Your task to perform on an android device: Set the phone to "Do not disturb". Image 0: 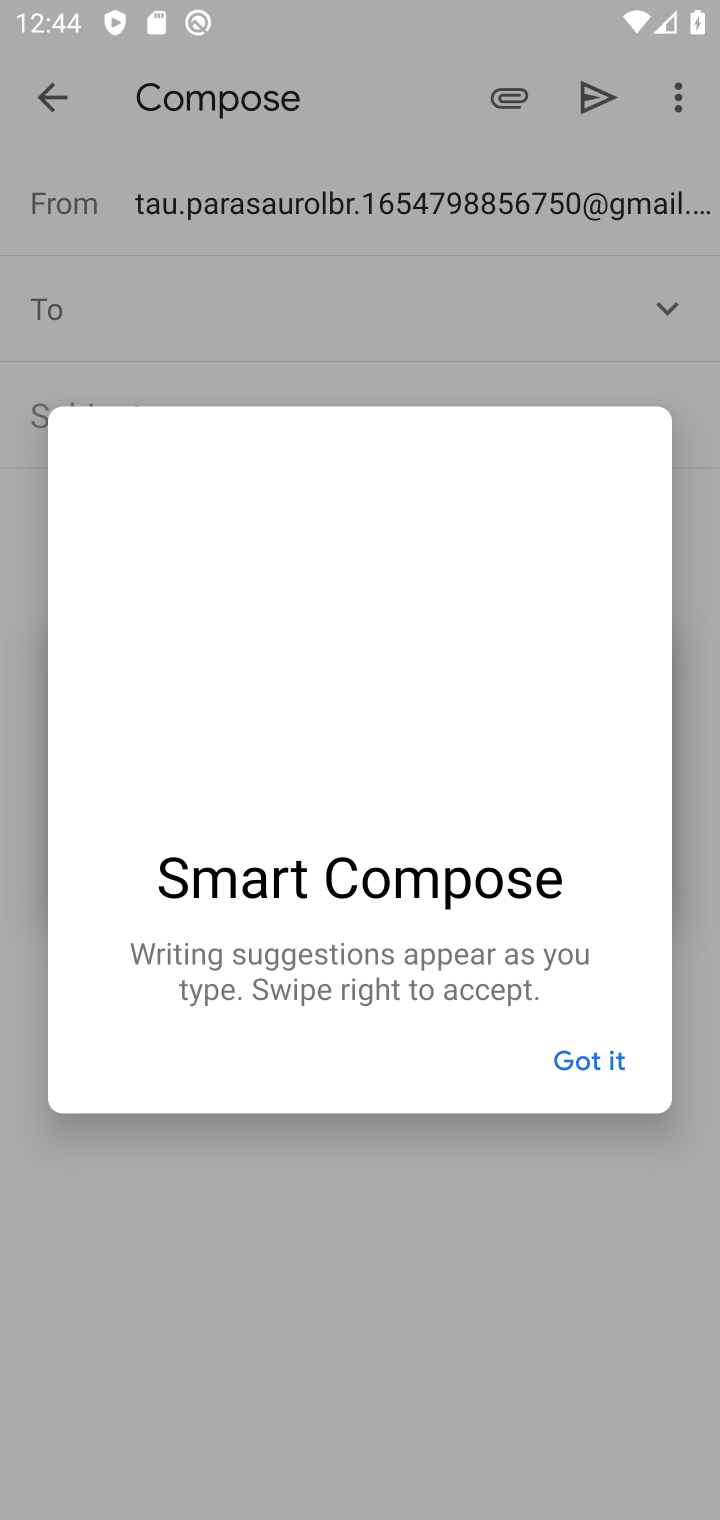
Step 0: press back button
Your task to perform on an android device: Set the phone to "Do not disturb". Image 1: 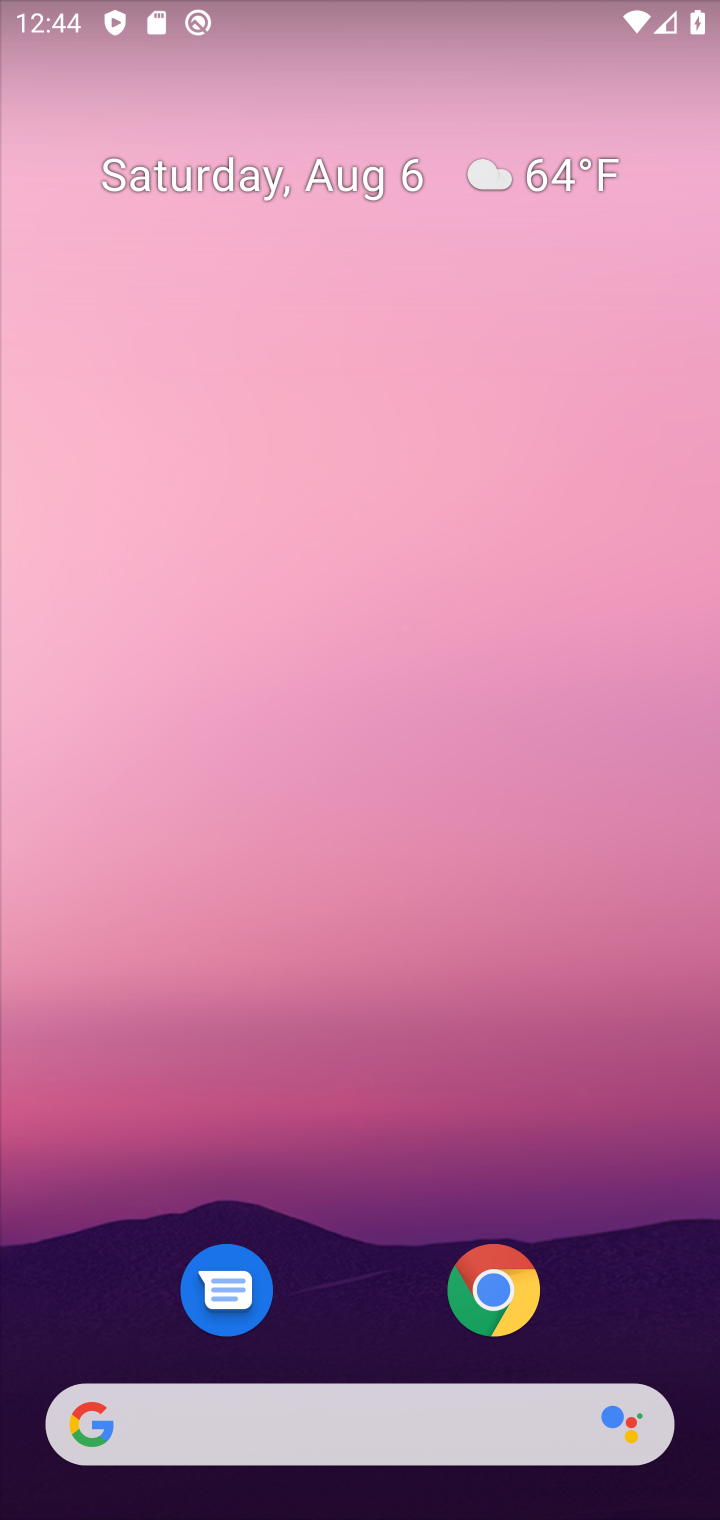
Step 1: press back button
Your task to perform on an android device: Set the phone to "Do not disturb". Image 2: 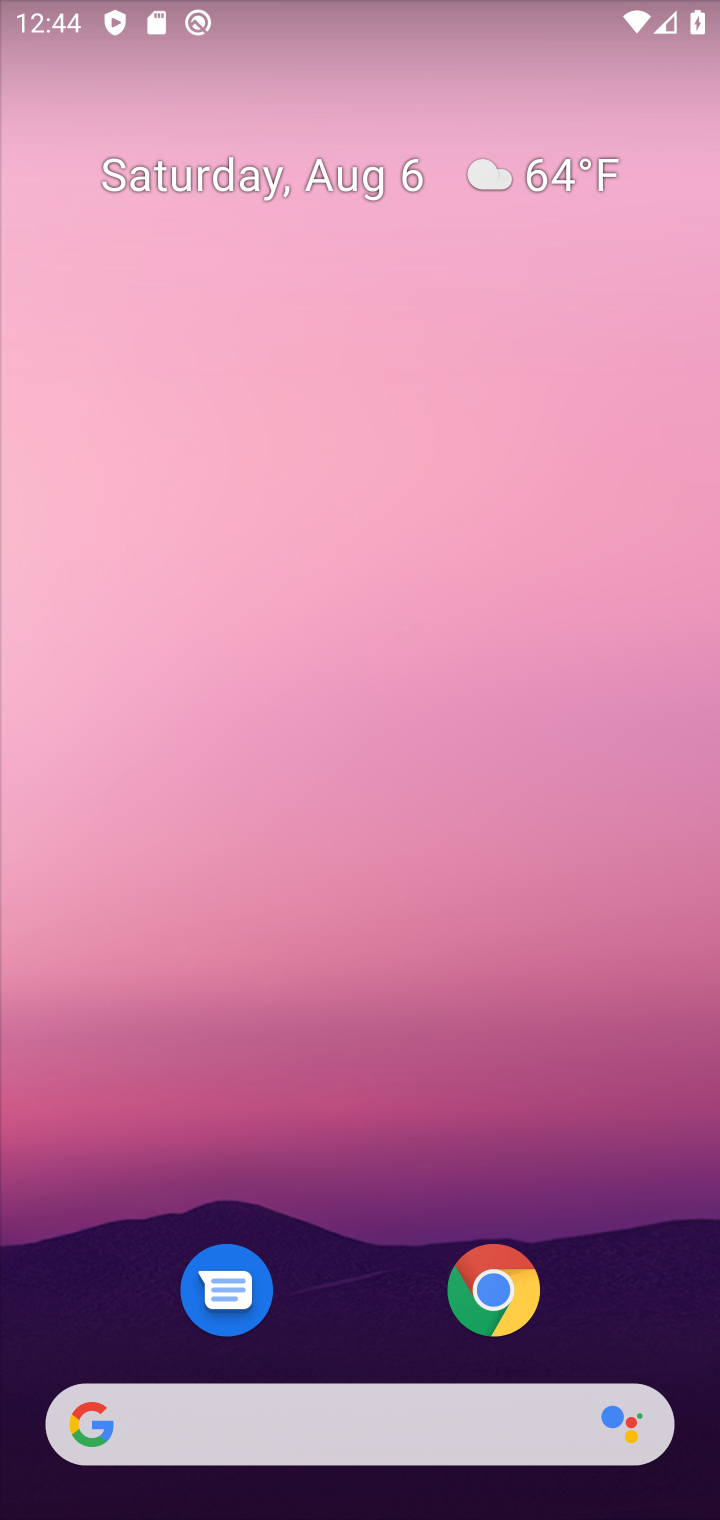
Step 2: drag from (446, 1369) to (342, 368)
Your task to perform on an android device: Set the phone to "Do not disturb". Image 3: 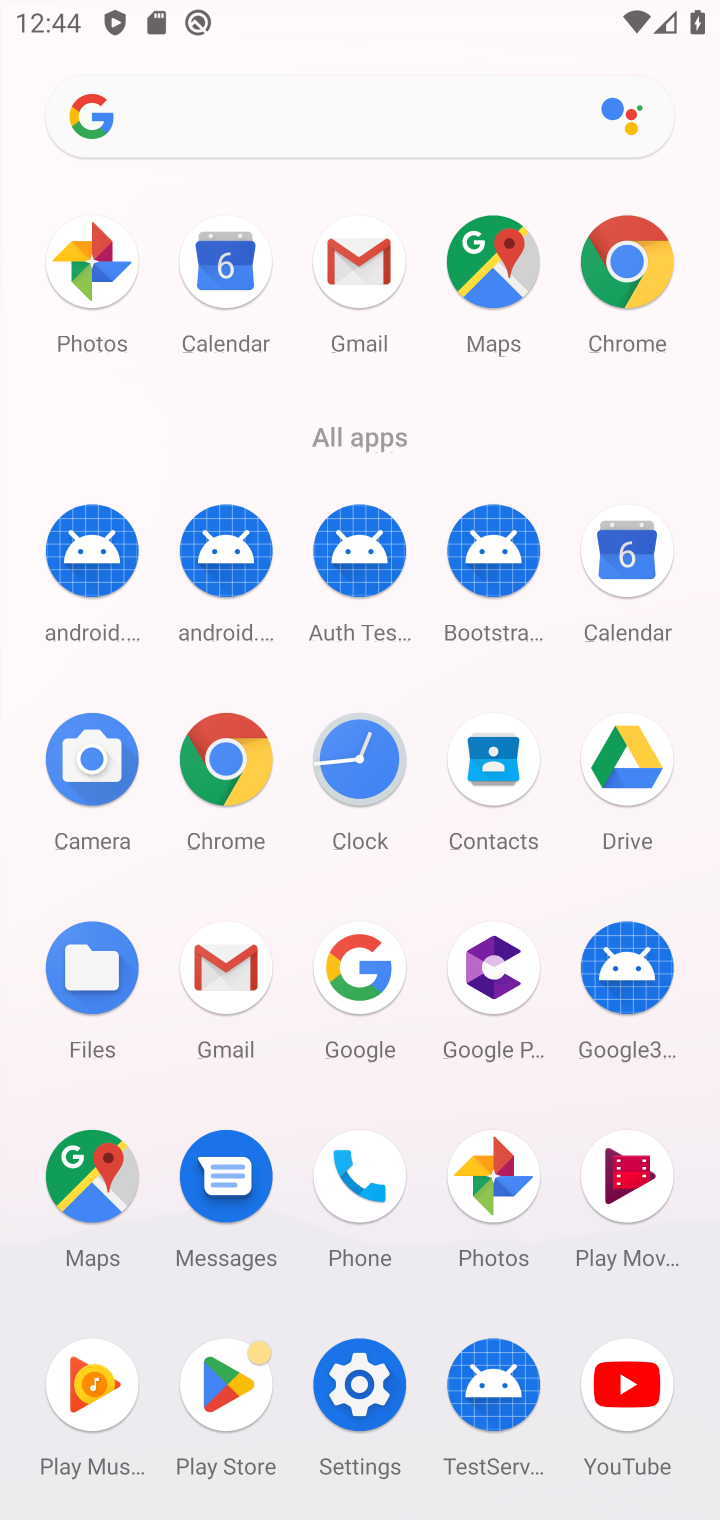
Step 3: drag from (401, 8) to (385, 1113)
Your task to perform on an android device: Set the phone to "Do not disturb". Image 4: 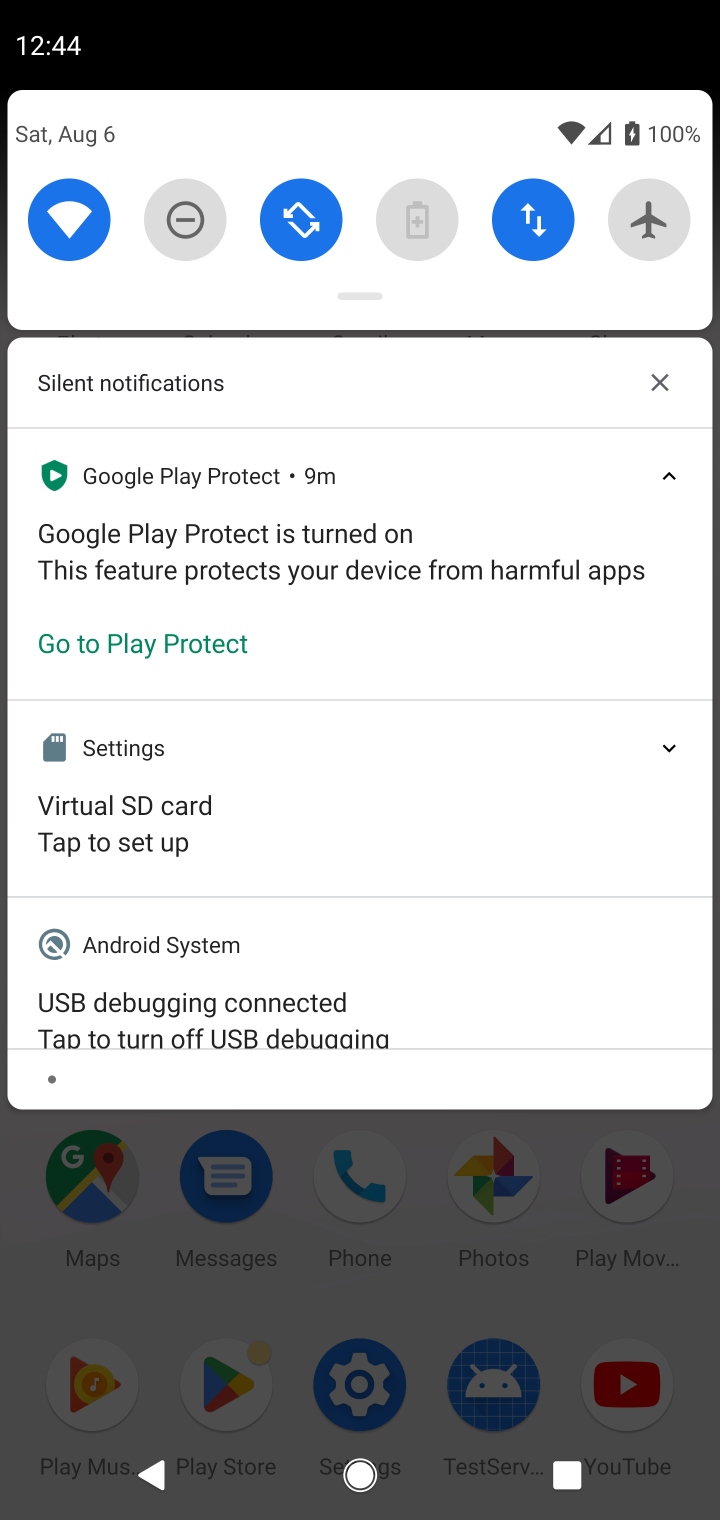
Step 4: click (190, 206)
Your task to perform on an android device: Set the phone to "Do not disturb". Image 5: 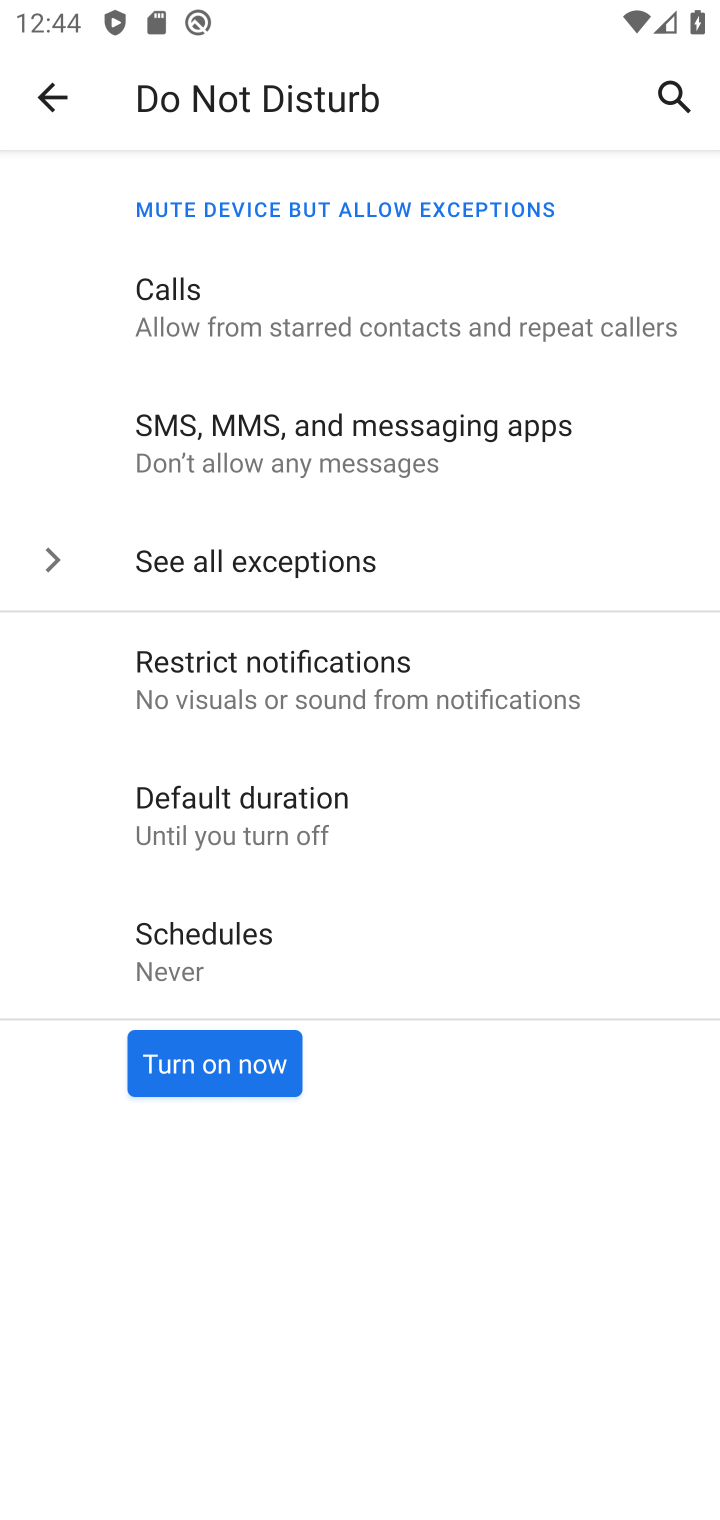
Step 5: click (249, 1081)
Your task to perform on an android device: Set the phone to "Do not disturb". Image 6: 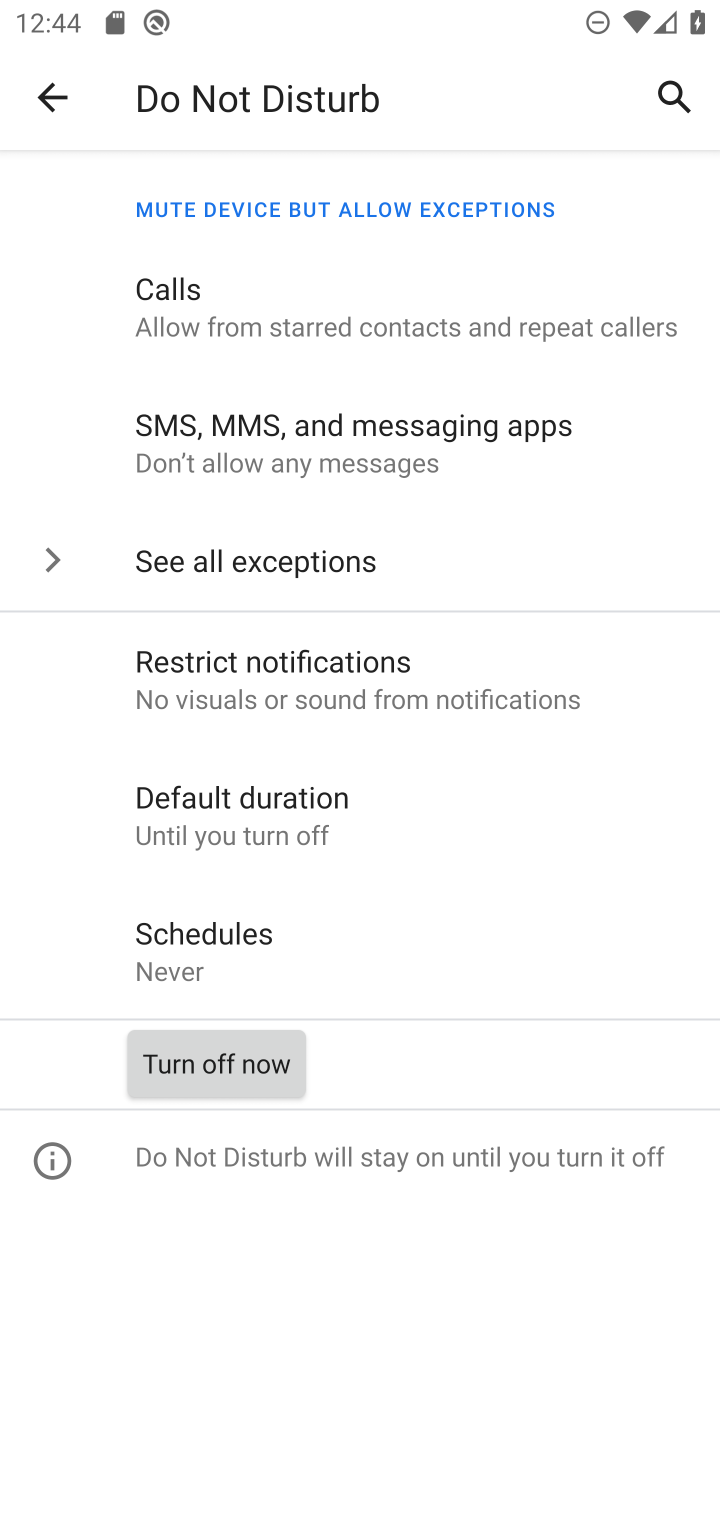
Step 6: task complete